Your task to perform on an android device: Open location settings Image 0: 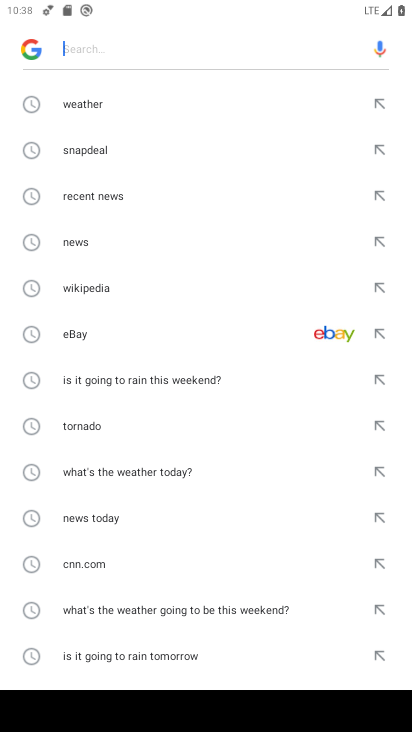
Step 0: press home button
Your task to perform on an android device: Open location settings Image 1: 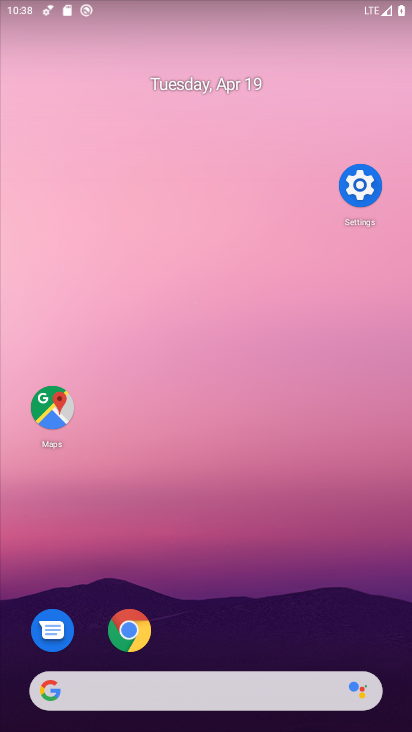
Step 1: drag from (310, 606) to (337, 366)
Your task to perform on an android device: Open location settings Image 2: 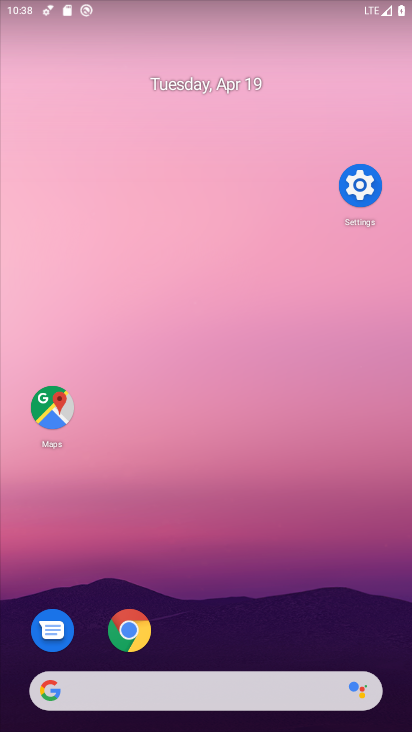
Step 2: drag from (260, 525) to (345, 67)
Your task to perform on an android device: Open location settings Image 3: 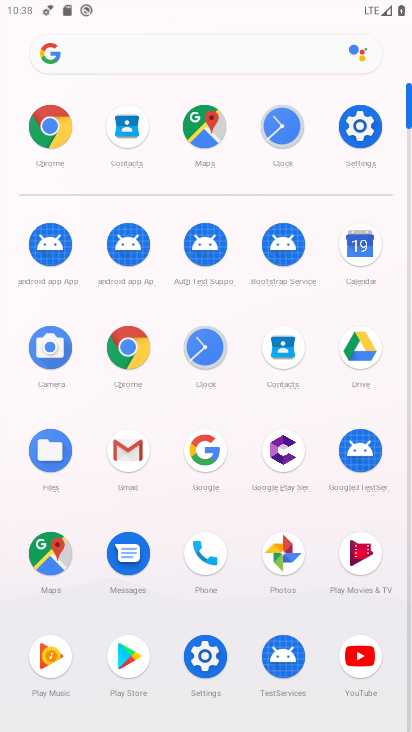
Step 3: click (369, 139)
Your task to perform on an android device: Open location settings Image 4: 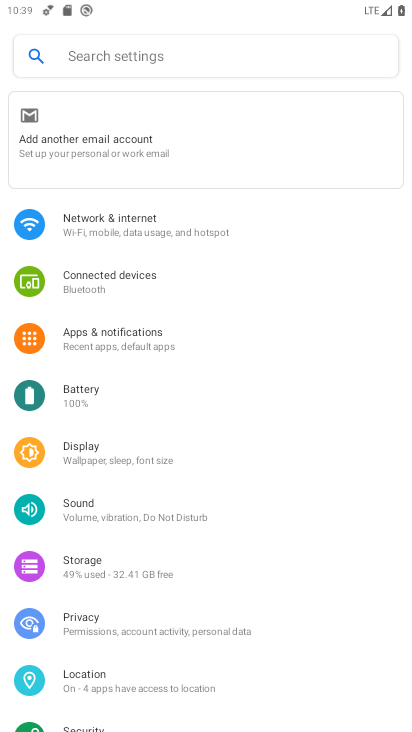
Step 4: click (129, 676)
Your task to perform on an android device: Open location settings Image 5: 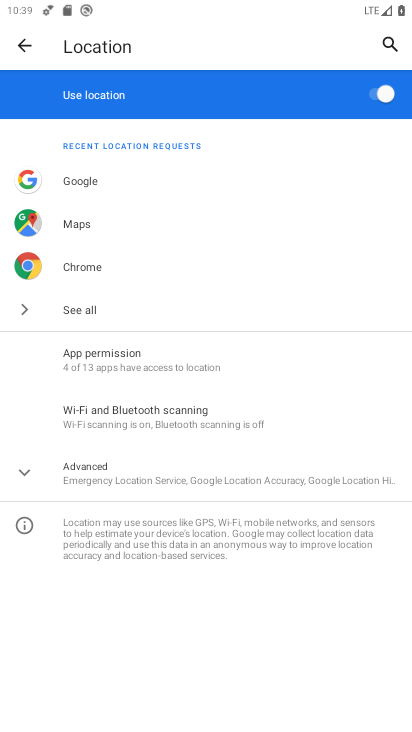
Step 5: task complete